Your task to perform on an android device: open app "Adobe Acrobat Reader" Image 0: 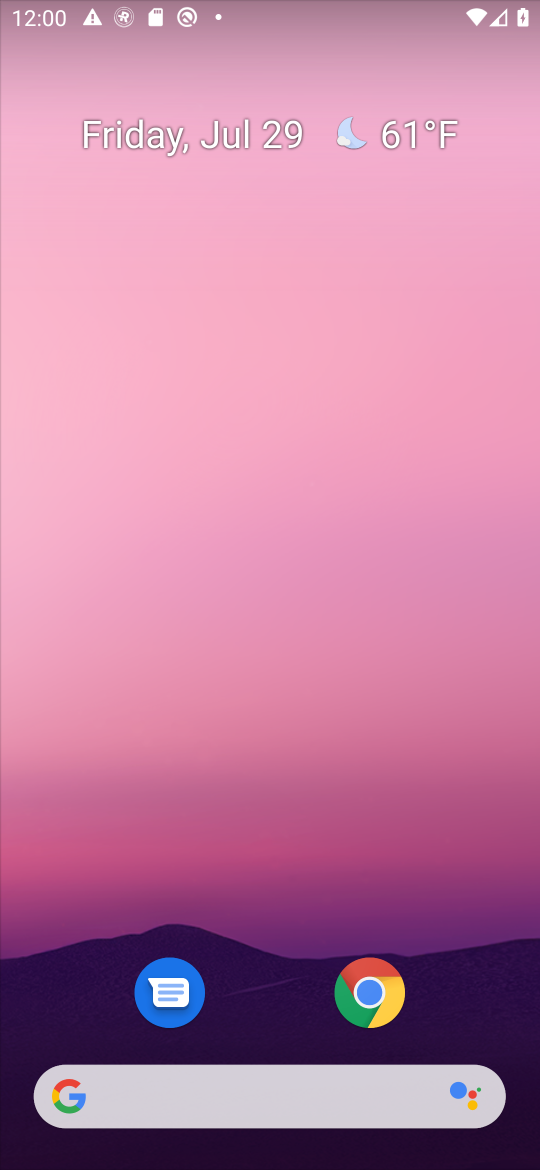
Step 0: press home button
Your task to perform on an android device: open app "Adobe Acrobat Reader" Image 1: 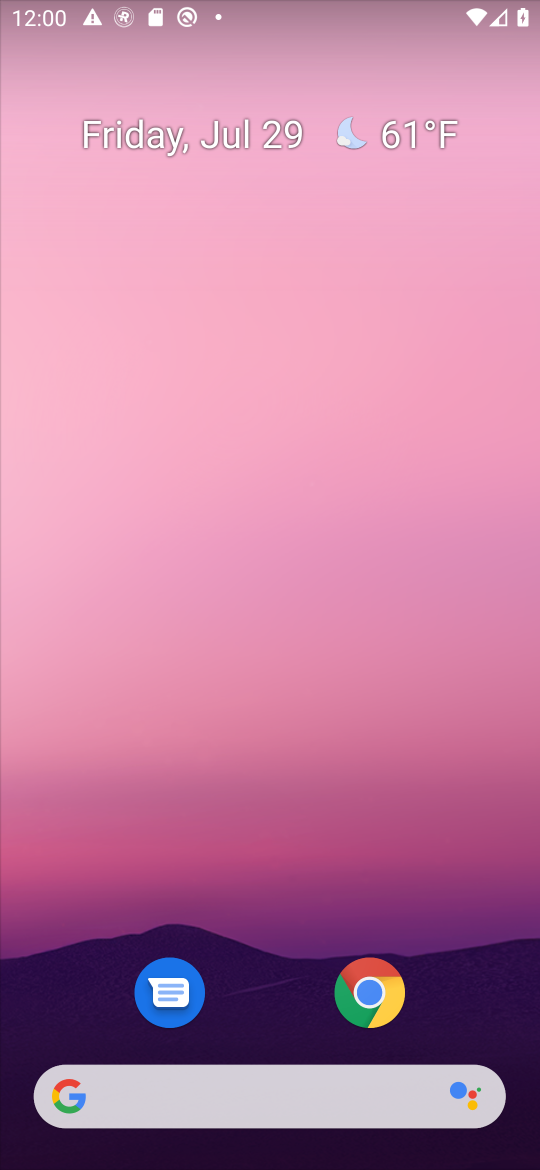
Step 1: drag from (207, 1077) to (232, 59)
Your task to perform on an android device: open app "Adobe Acrobat Reader" Image 2: 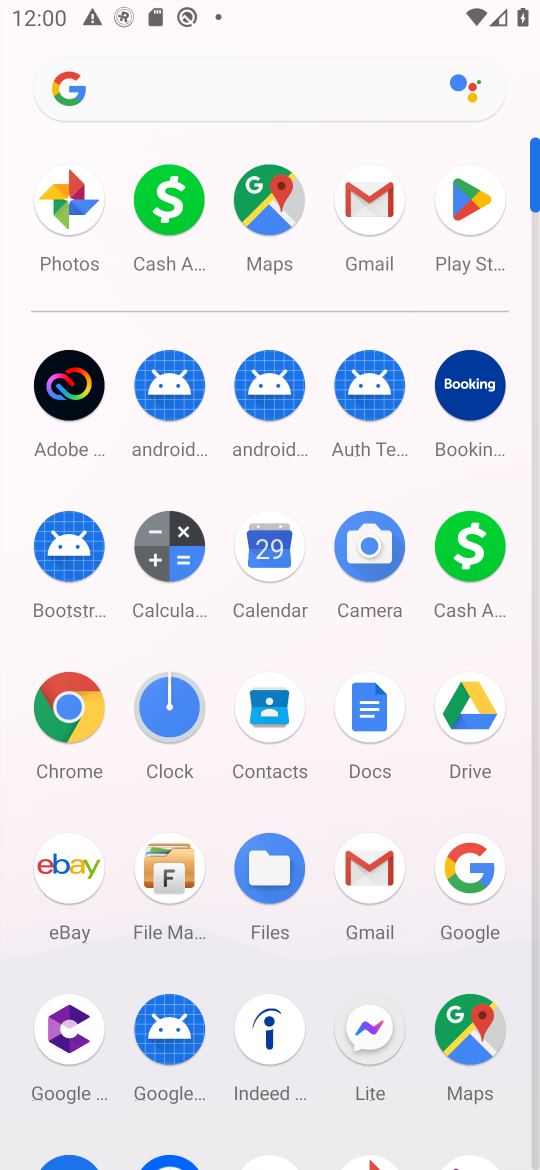
Step 2: click (474, 191)
Your task to perform on an android device: open app "Adobe Acrobat Reader" Image 3: 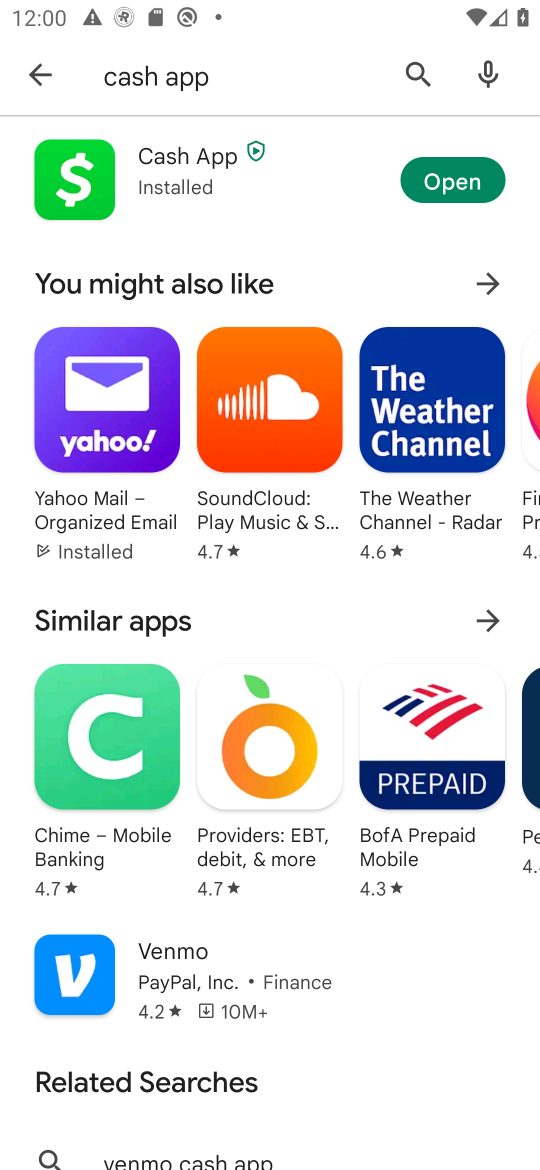
Step 3: click (409, 80)
Your task to perform on an android device: open app "Adobe Acrobat Reader" Image 4: 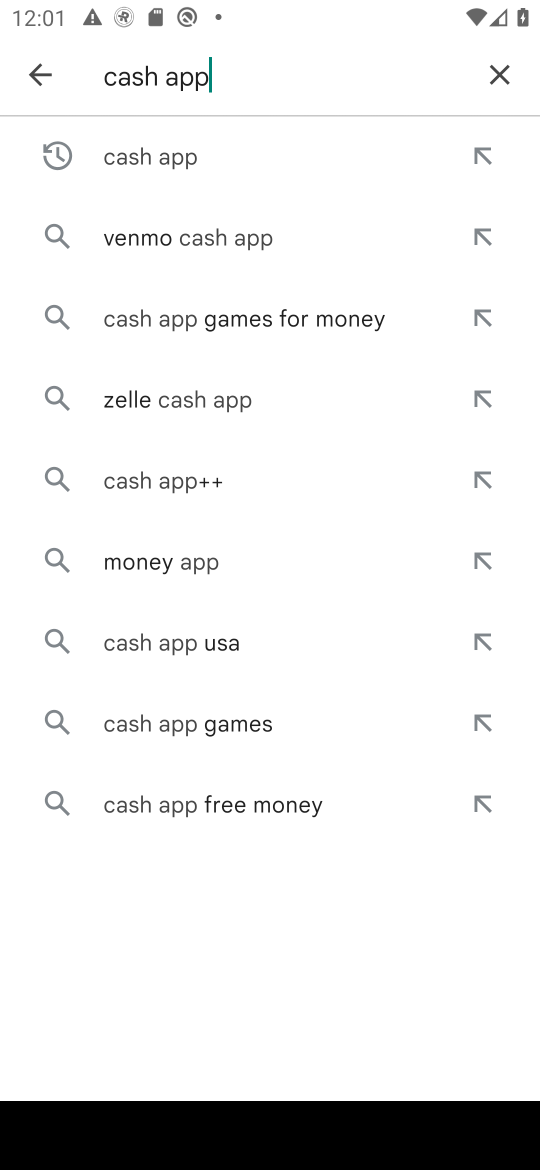
Step 4: click (502, 79)
Your task to perform on an android device: open app "Adobe Acrobat Reader" Image 5: 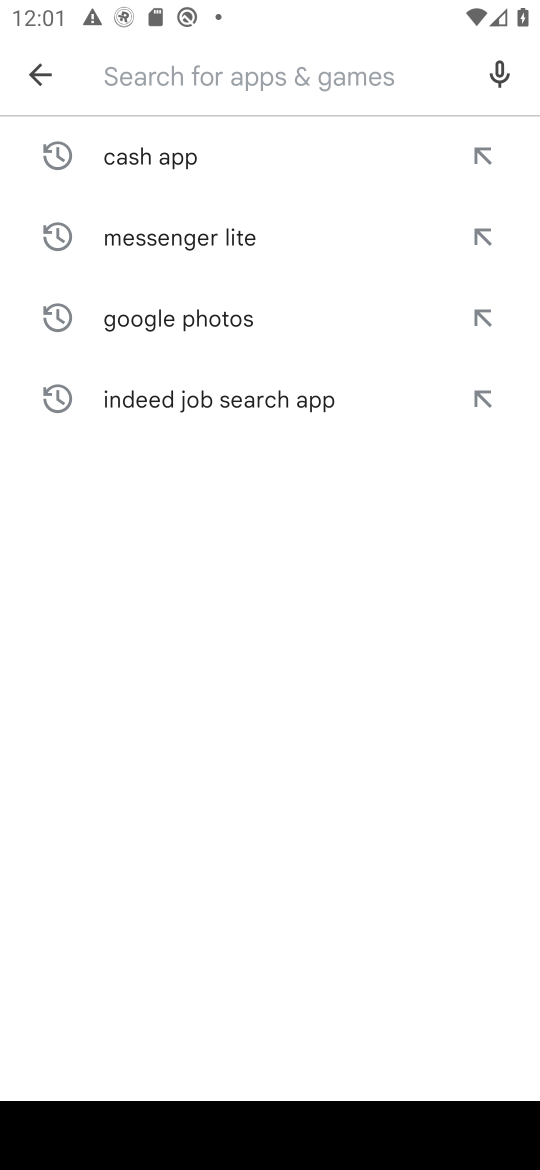
Step 5: type "Adobe Acrobat Reader"
Your task to perform on an android device: open app "Adobe Acrobat Reader" Image 6: 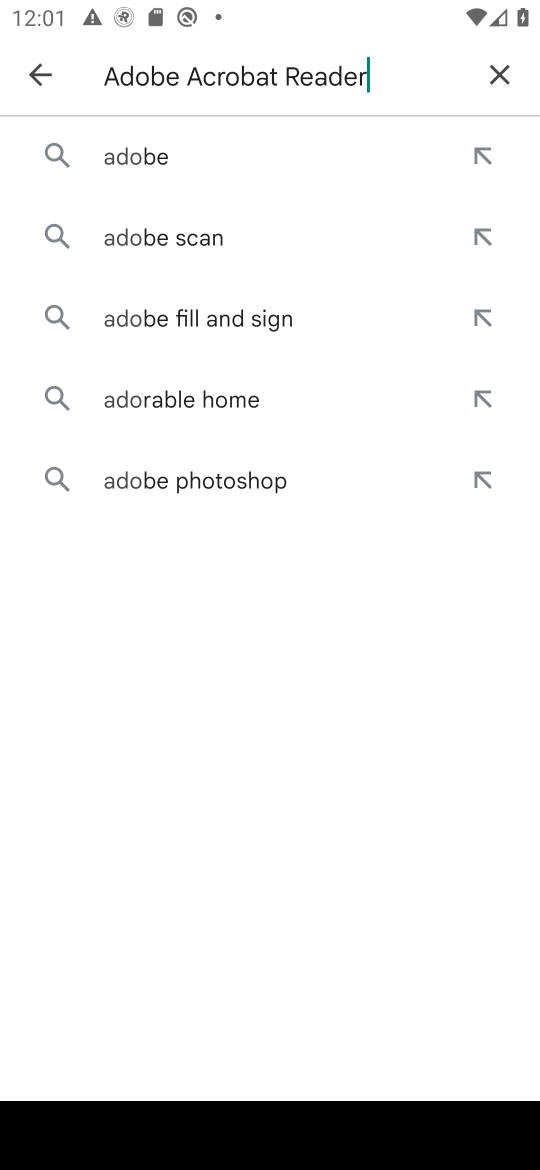
Step 6: type ""
Your task to perform on an android device: open app "Adobe Acrobat Reader" Image 7: 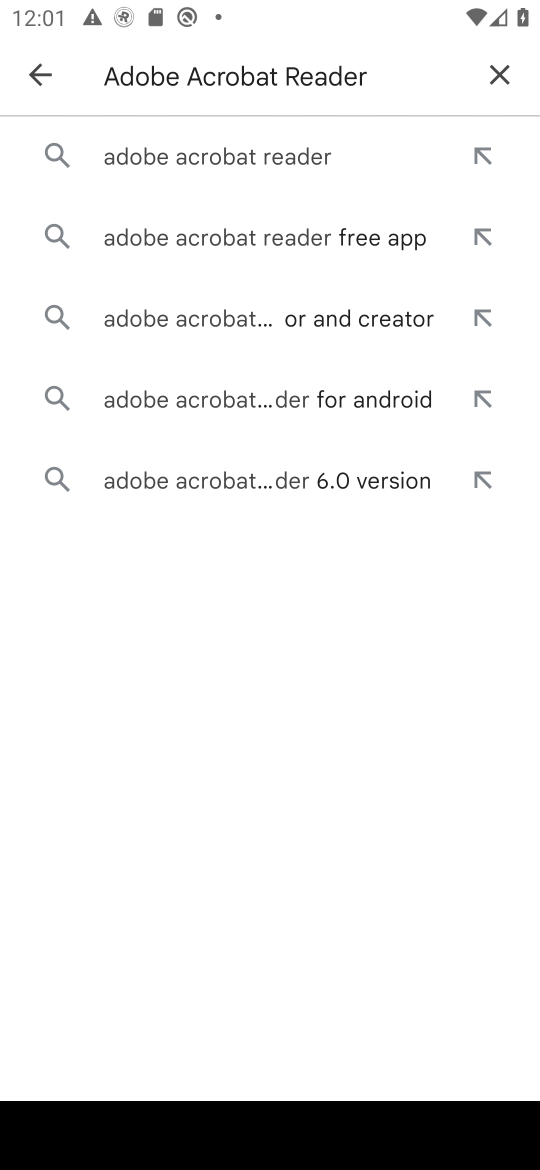
Step 7: click (235, 162)
Your task to perform on an android device: open app "Adobe Acrobat Reader" Image 8: 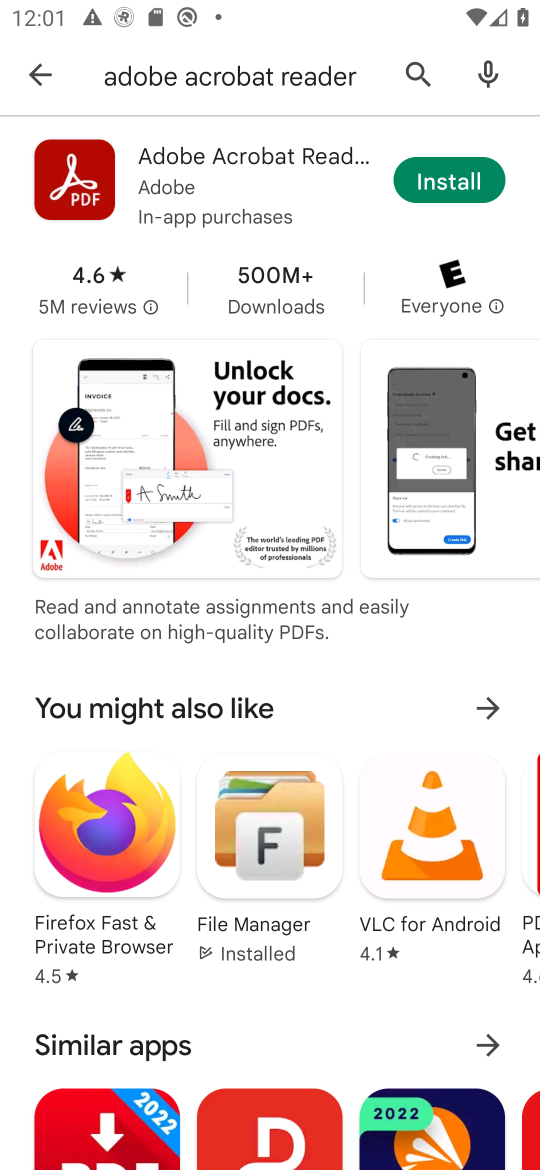
Step 8: task complete